Your task to perform on an android device: turn on sleep mode Image 0: 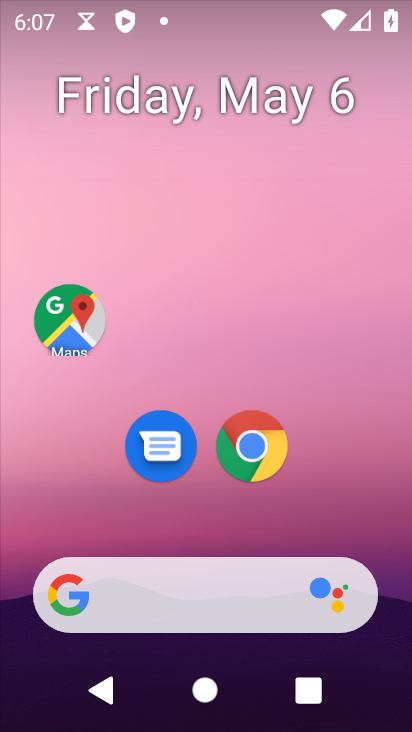
Step 0: drag from (321, 507) to (321, 60)
Your task to perform on an android device: turn on sleep mode Image 1: 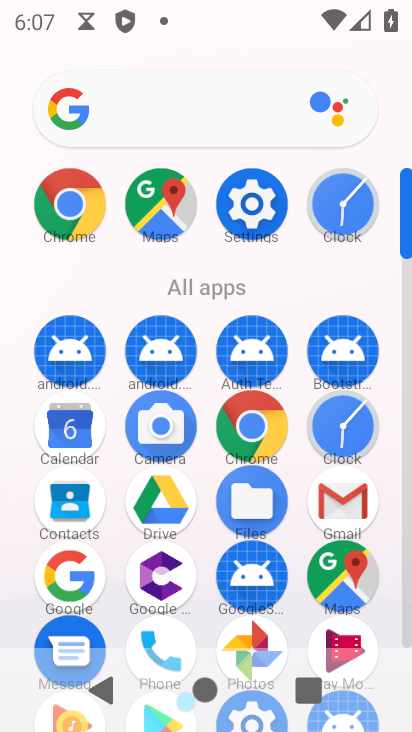
Step 1: click (248, 206)
Your task to perform on an android device: turn on sleep mode Image 2: 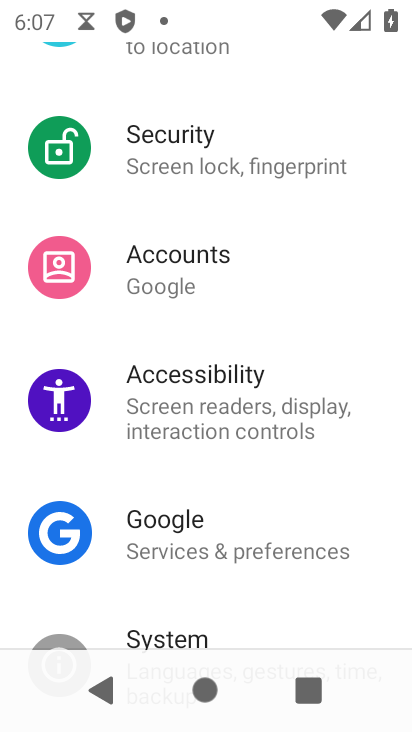
Step 2: task complete